Your task to perform on an android device: turn off translation in the chrome app Image 0: 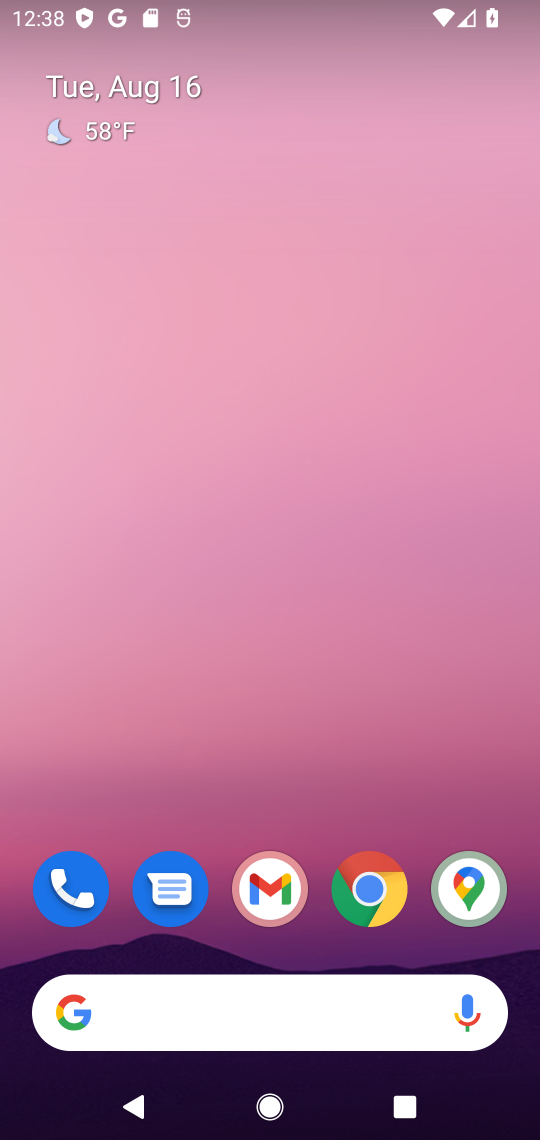
Step 0: drag from (176, 949) to (287, 25)
Your task to perform on an android device: turn off translation in the chrome app Image 1: 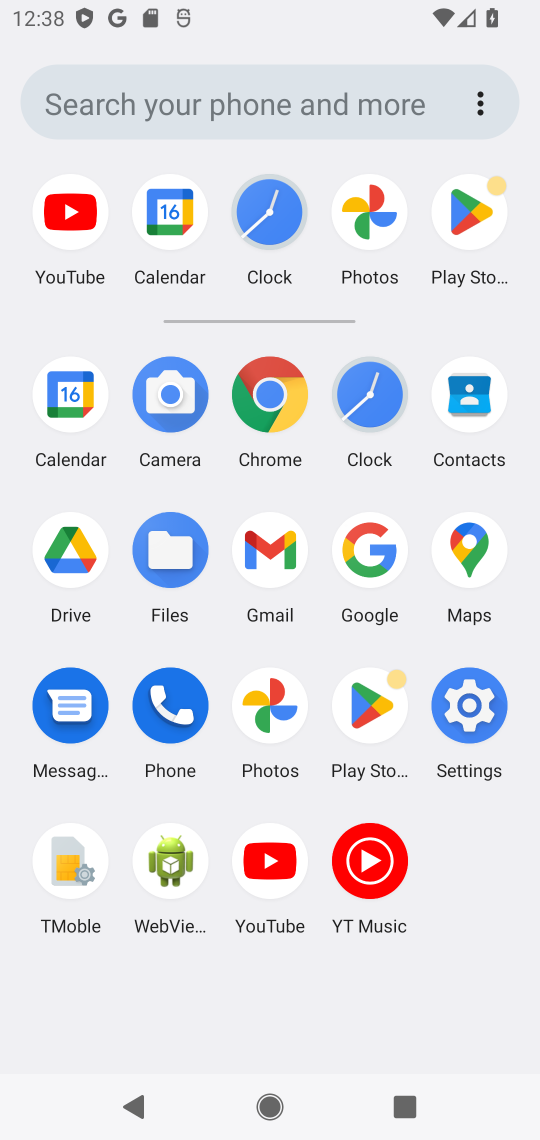
Step 1: click (265, 385)
Your task to perform on an android device: turn off translation in the chrome app Image 2: 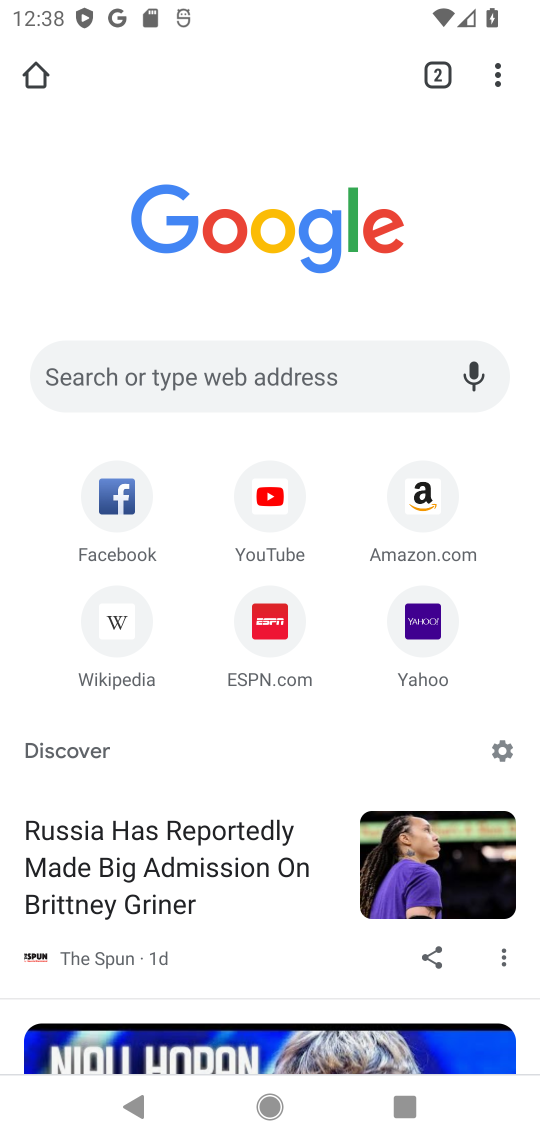
Step 2: drag from (494, 59) to (254, 809)
Your task to perform on an android device: turn off translation in the chrome app Image 3: 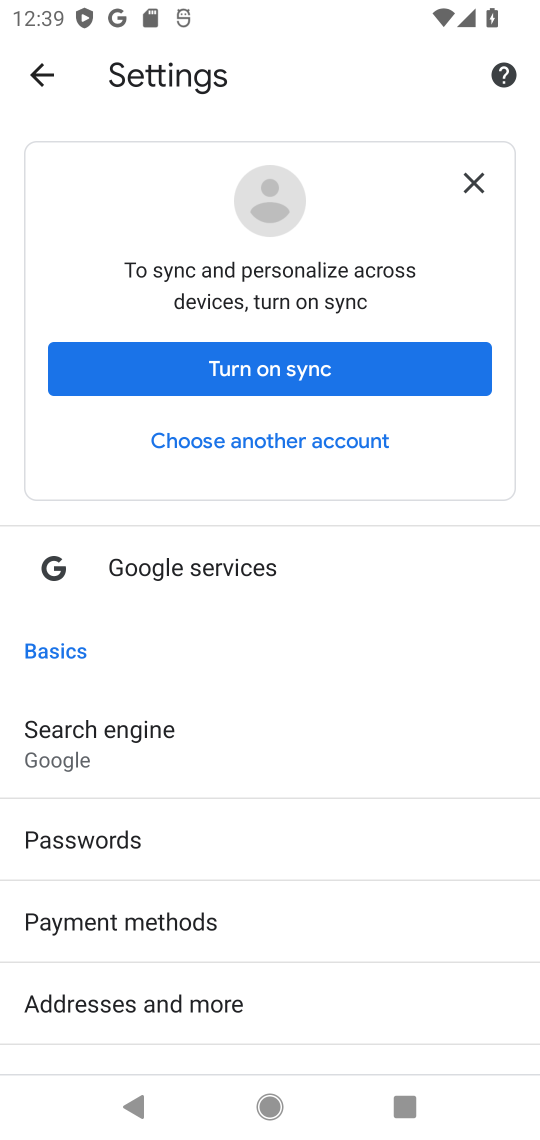
Step 3: drag from (160, 925) to (296, 358)
Your task to perform on an android device: turn off translation in the chrome app Image 4: 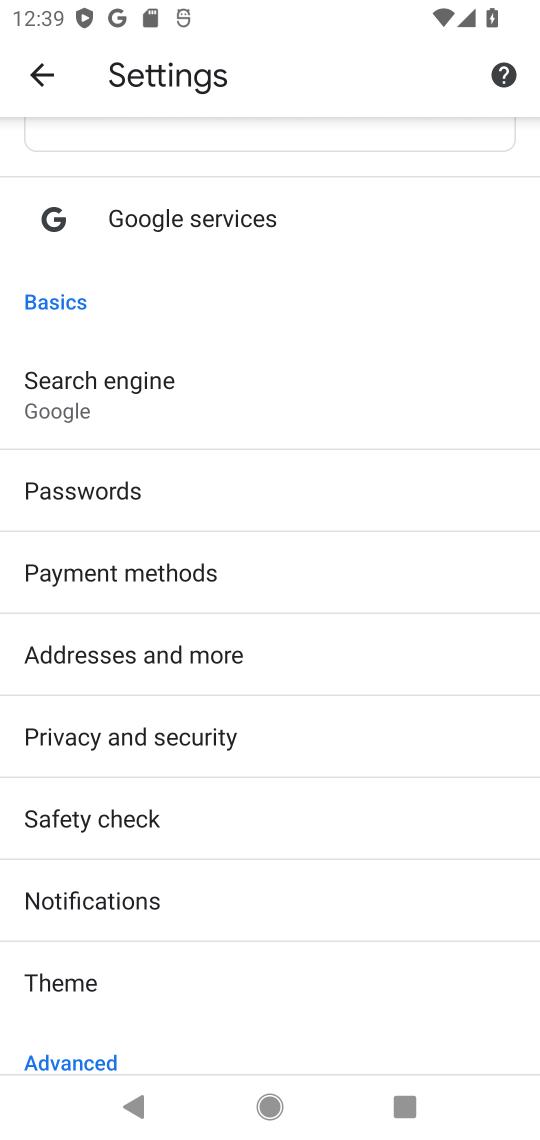
Step 4: drag from (179, 968) to (331, 183)
Your task to perform on an android device: turn off translation in the chrome app Image 5: 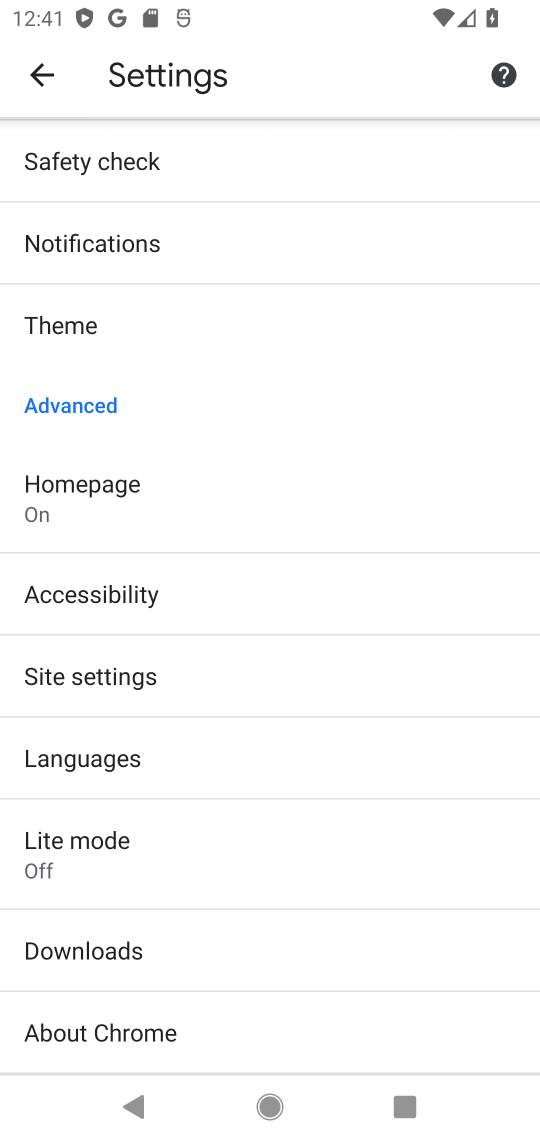
Step 5: drag from (153, 871) to (279, 435)
Your task to perform on an android device: turn off translation in the chrome app Image 6: 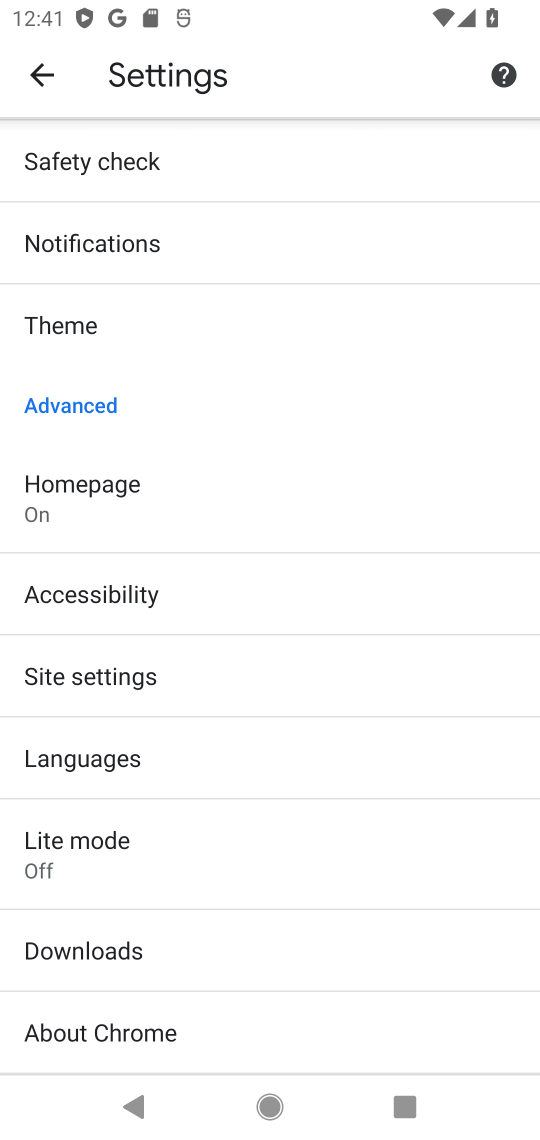
Step 6: click (141, 773)
Your task to perform on an android device: turn off translation in the chrome app Image 7: 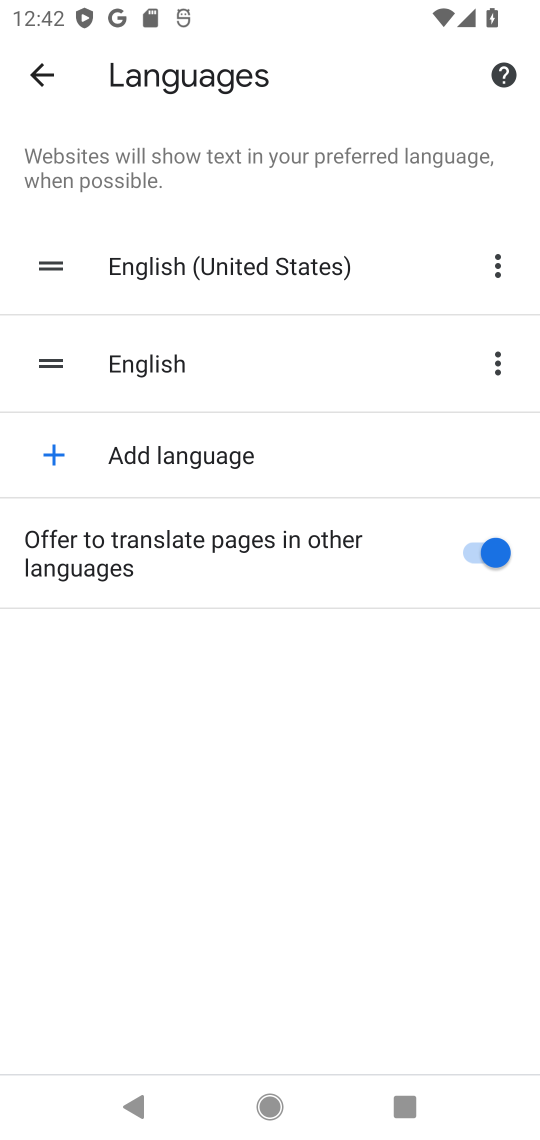
Step 7: click (489, 562)
Your task to perform on an android device: turn off translation in the chrome app Image 8: 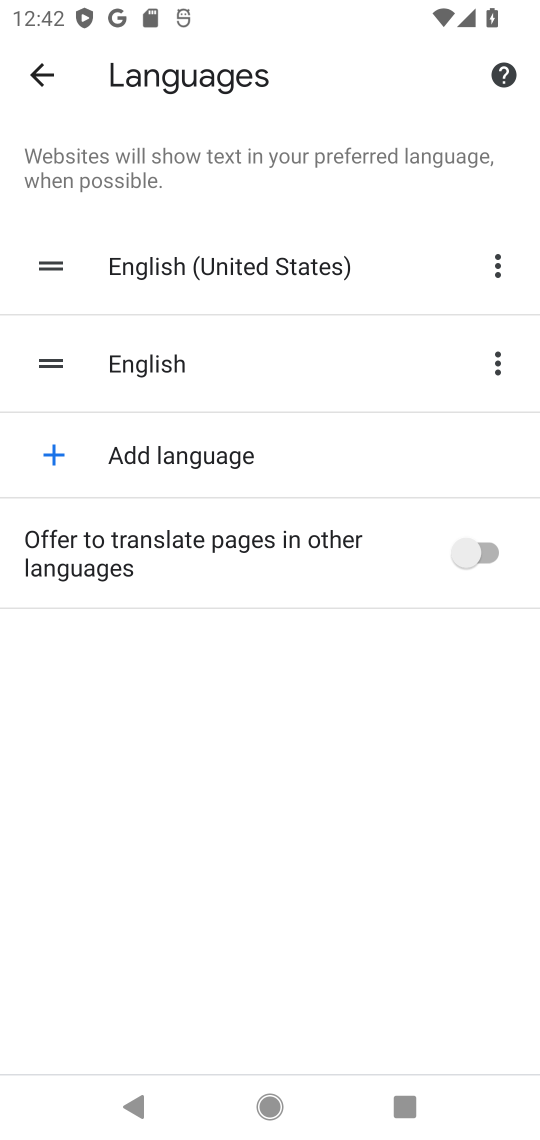
Step 8: task complete